Your task to perform on an android device: check android version Image 0: 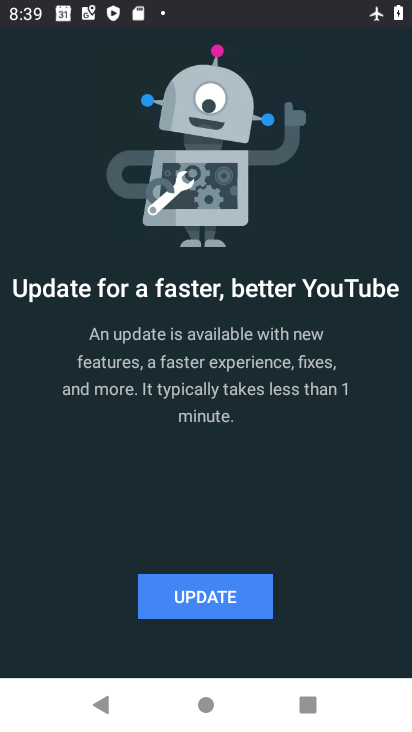
Step 0: press home button
Your task to perform on an android device: check android version Image 1: 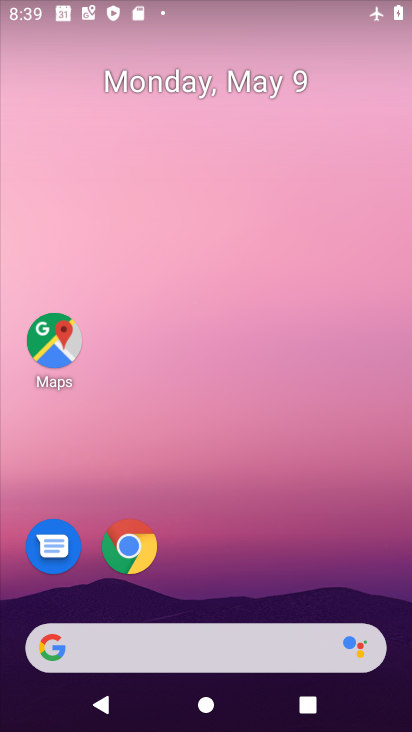
Step 1: drag from (157, 660) to (260, 55)
Your task to perform on an android device: check android version Image 2: 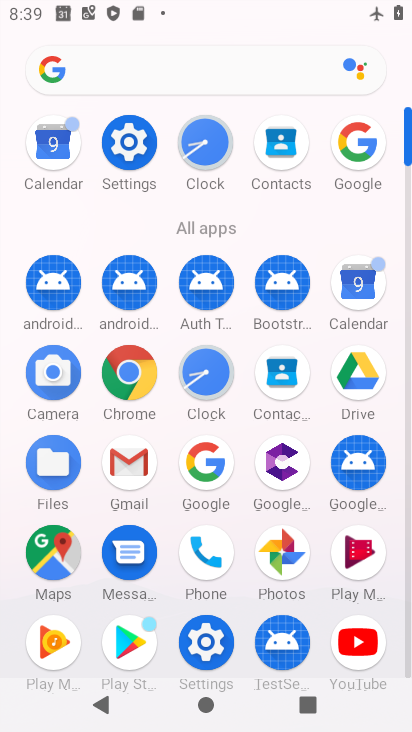
Step 2: click (116, 146)
Your task to perform on an android device: check android version Image 3: 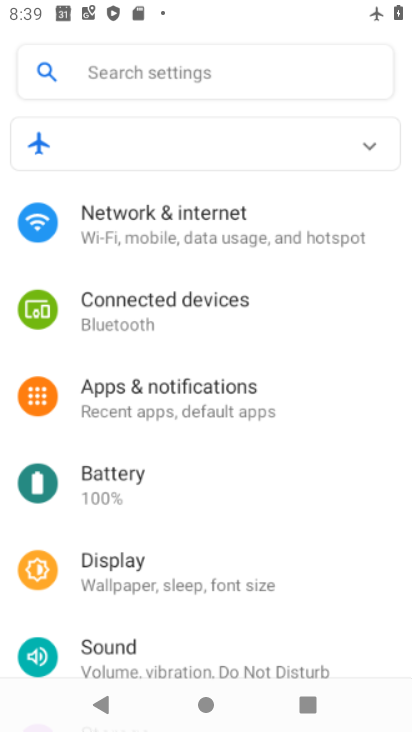
Step 3: drag from (250, 651) to (309, 98)
Your task to perform on an android device: check android version Image 4: 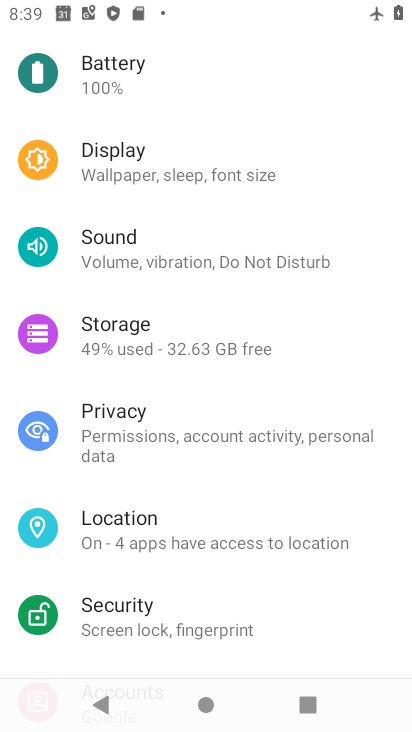
Step 4: drag from (214, 631) to (259, 105)
Your task to perform on an android device: check android version Image 5: 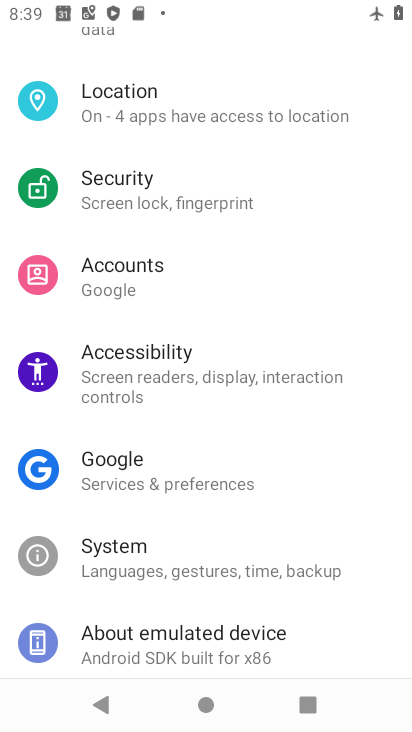
Step 5: drag from (158, 609) to (252, 77)
Your task to perform on an android device: check android version Image 6: 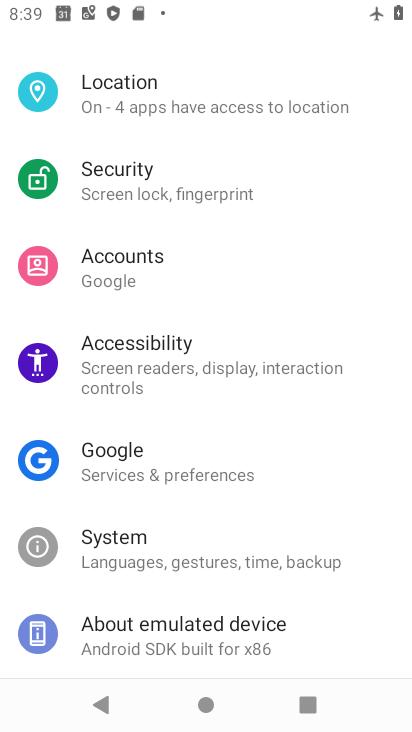
Step 6: click (194, 637)
Your task to perform on an android device: check android version Image 7: 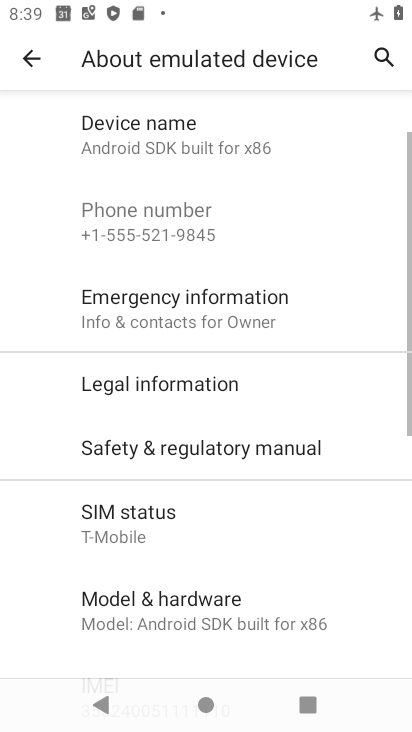
Step 7: task complete